Your task to perform on an android device: Go to display settings Image 0: 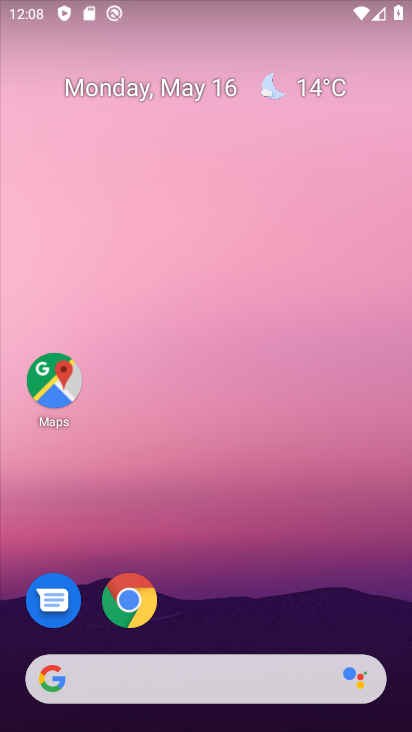
Step 0: drag from (236, 631) to (240, 81)
Your task to perform on an android device: Go to display settings Image 1: 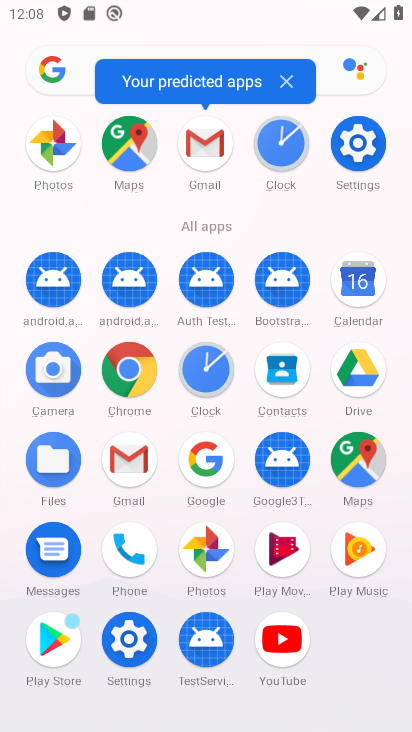
Step 1: click (360, 148)
Your task to perform on an android device: Go to display settings Image 2: 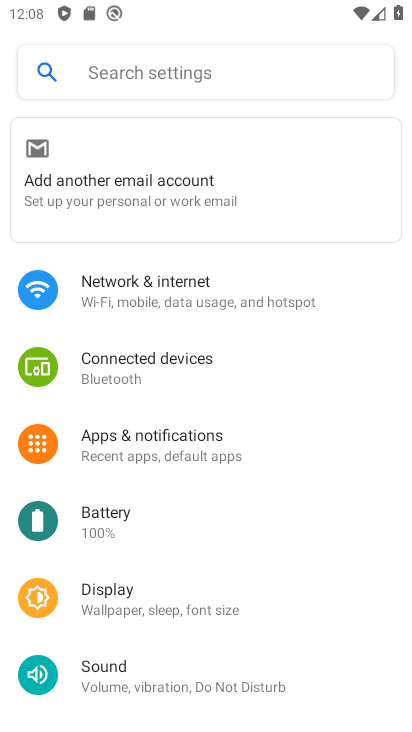
Step 2: click (173, 604)
Your task to perform on an android device: Go to display settings Image 3: 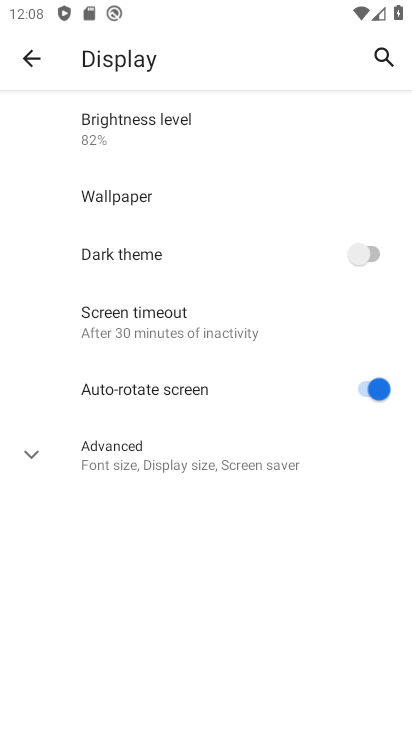
Step 3: task complete